Your task to perform on an android device: Open network settings Image 0: 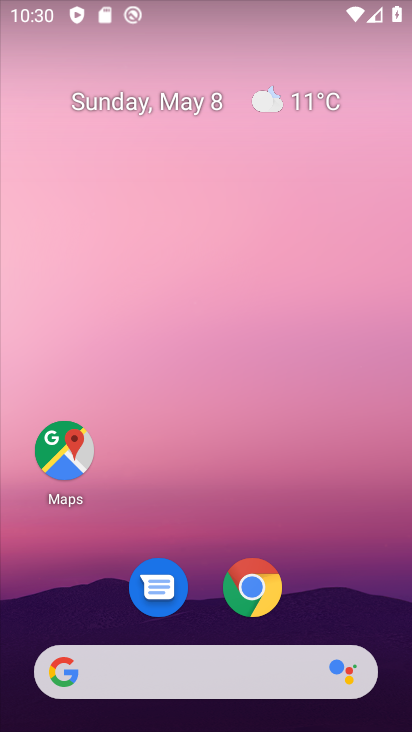
Step 0: drag from (162, 663) to (238, 8)
Your task to perform on an android device: Open network settings Image 1: 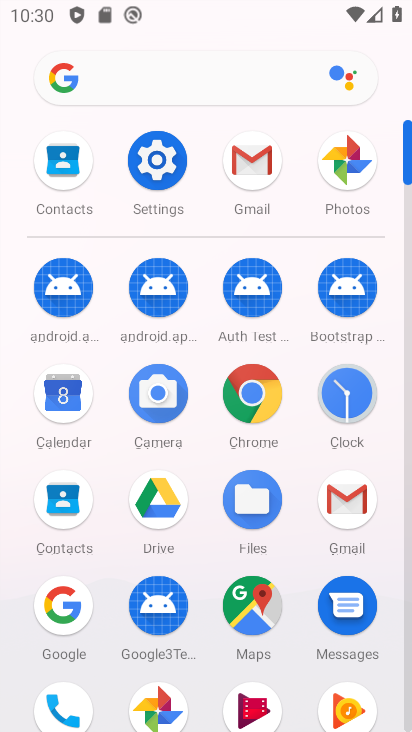
Step 1: click (159, 160)
Your task to perform on an android device: Open network settings Image 2: 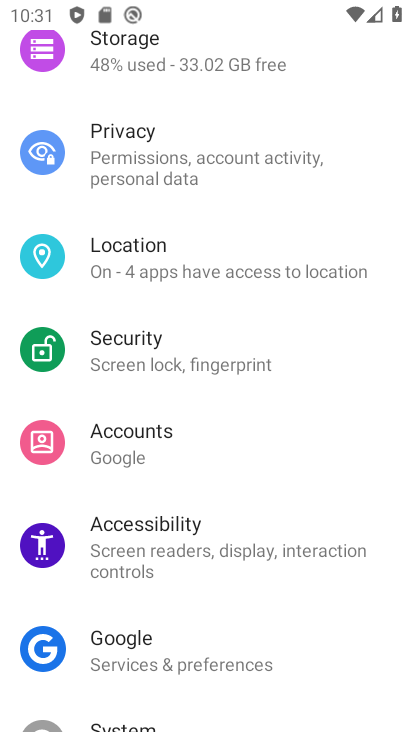
Step 2: drag from (159, 160) to (151, 500)
Your task to perform on an android device: Open network settings Image 3: 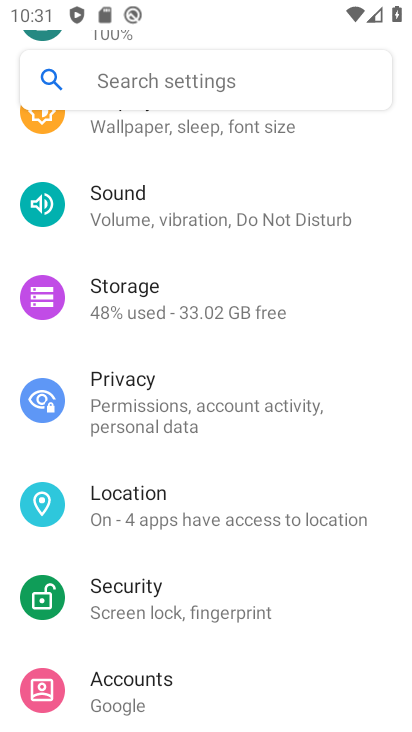
Step 3: drag from (138, 234) to (227, 591)
Your task to perform on an android device: Open network settings Image 4: 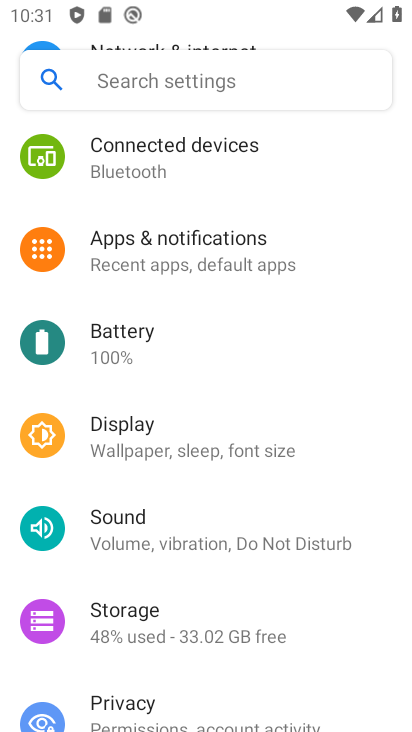
Step 4: drag from (190, 254) to (267, 558)
Your task to perform on an android device: Open network settings Image 5: 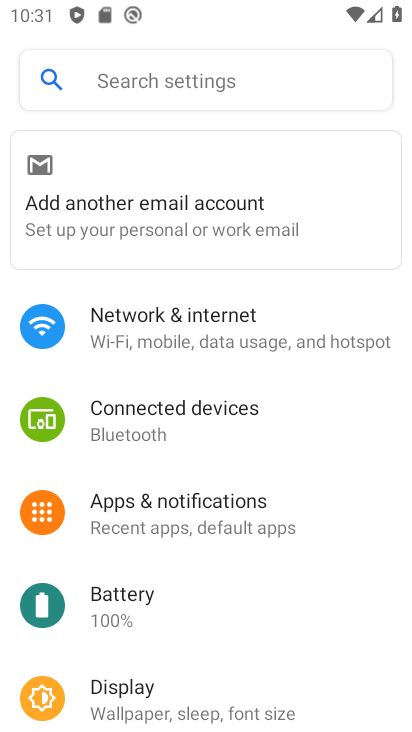
Step 5: click (177, 343)
Your task to perform on an android device: Open network settings Image 6: 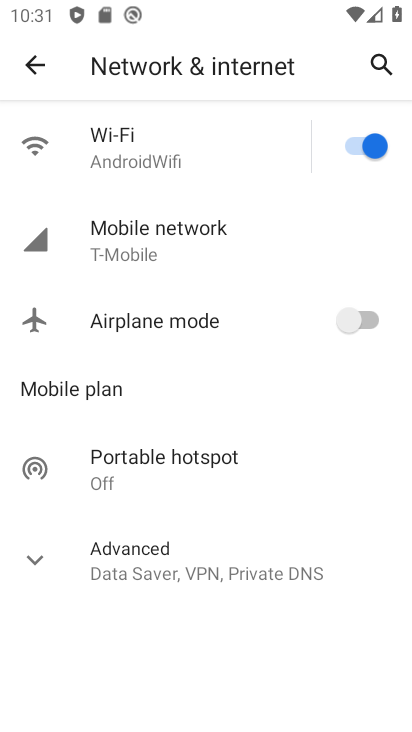
Step 6: task complete